Your task to perform on an android device: Go to CNN.com Image 0: 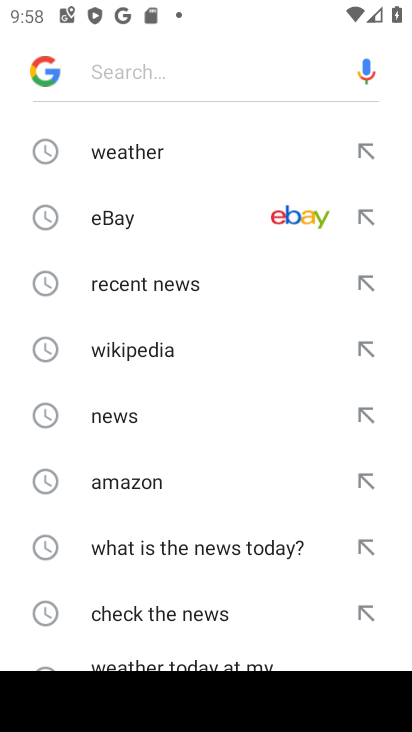
Step 0: press home button
Your task to perform on an android device: Go to CNN.com Image 1: 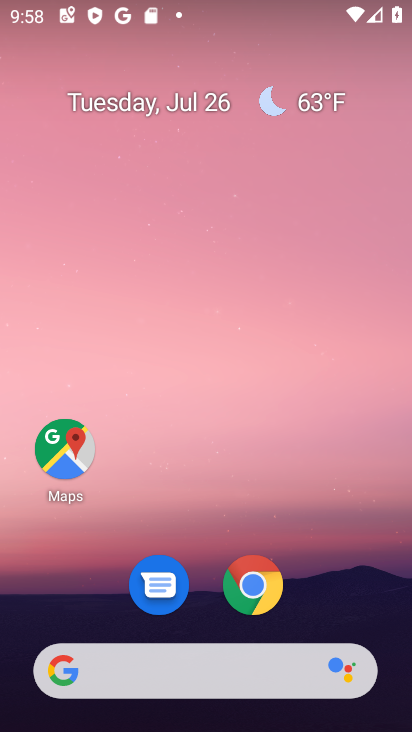
Step 1: click (239, 679)
Your task to perform on an android device: Go to CNN.com Image 2: 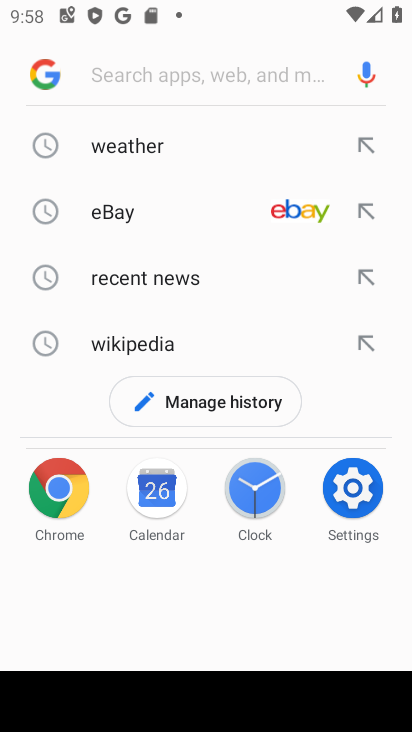
Step 2: type "cnn.com"
Your task to perform on an android device: Go to CNN.com Image 3: 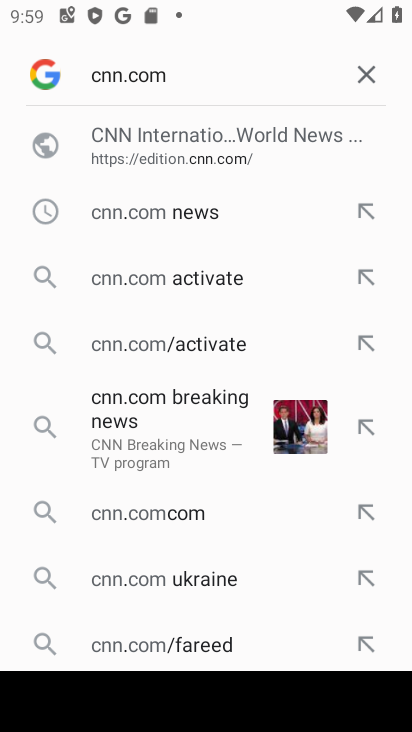
Step 3: click (185, 151)
Your task to perform on an android device: Go to CNN.com Image 4: 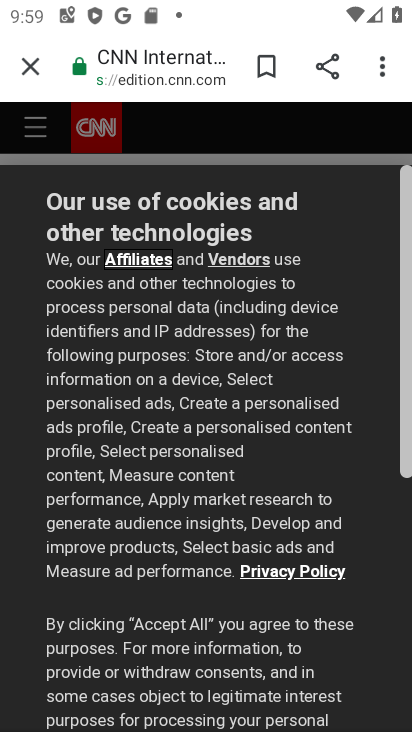
Step 4: task complete